Your task to perform on an android device: turn vacation reply on in the gmail app Image 0: 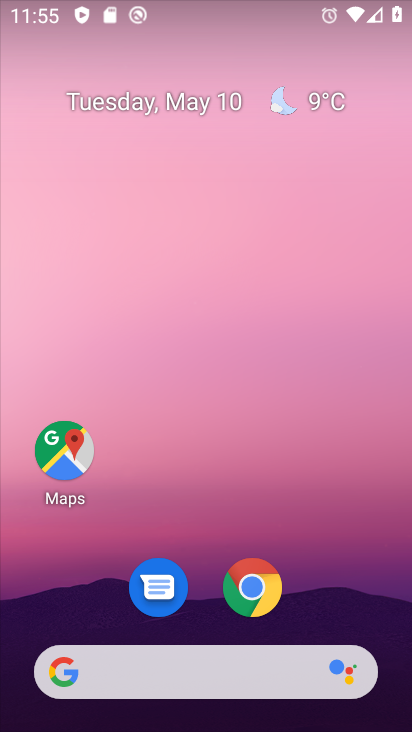
Step 0: drag from (357, 609) to (330, 0)
Your task to perform on an android device: turn vacation reply on in the gmail app Image 1: 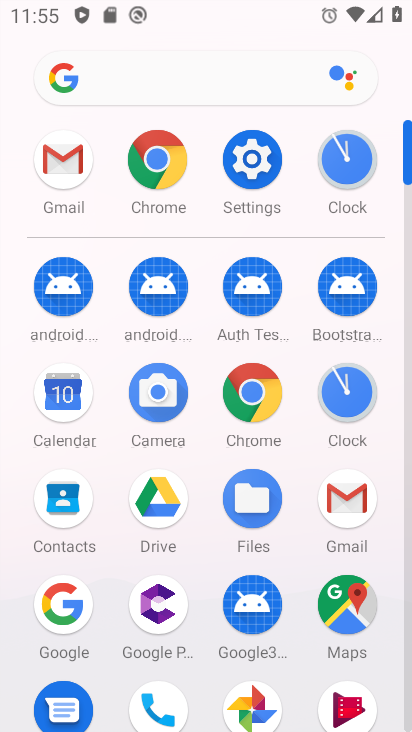
Step 1: click (56, 162)
Your task to perform on an android device: turn vacation reply on in the gmail app Image 2: 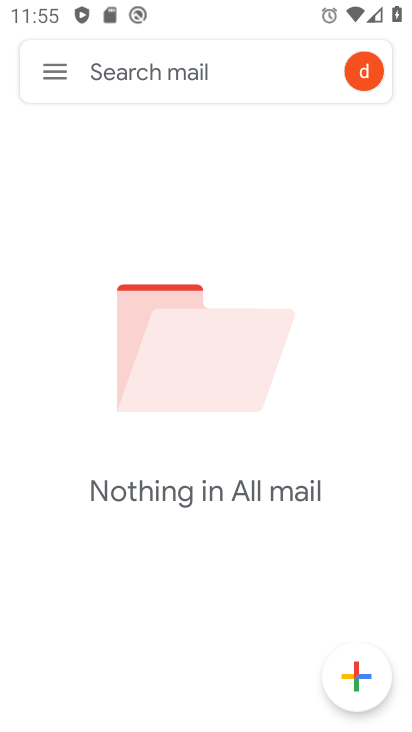
Step 2: click (44, 80)
Your task to perform on an android device: turn vacation reply on in the gmail app Image 3: 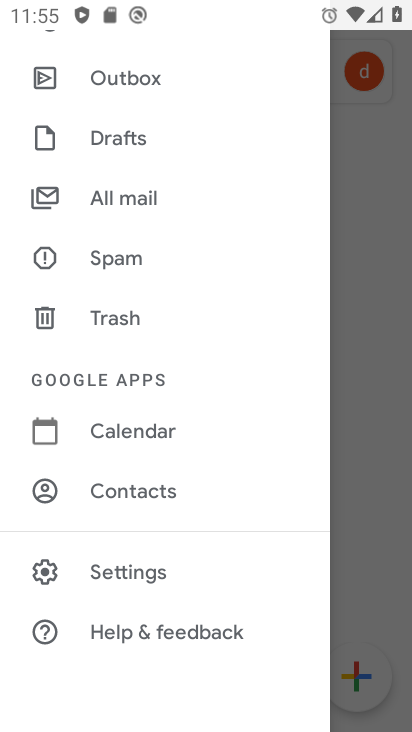
Step 3: click (134, 579)
Your task to perform on an android device: turn vacation reply on in the gmail app Image 4: 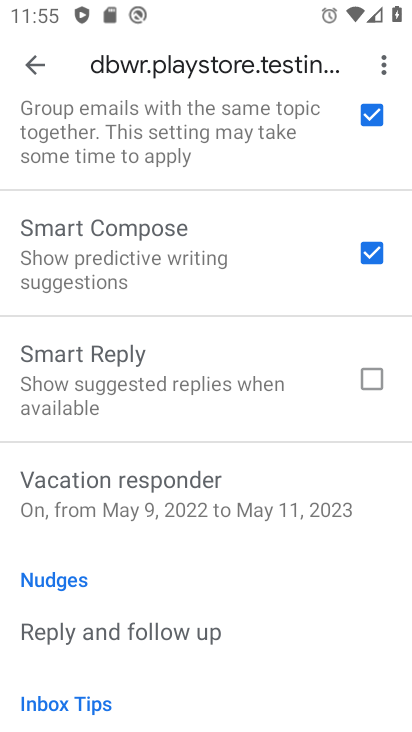
Step 4: click (101, 487)
Your task to perform on an android device: turn vacation reply on in the gmail app Image 5: 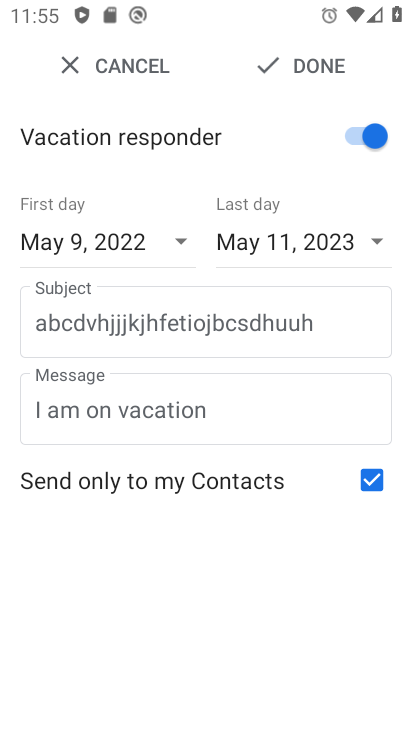
Step 5: click (298, 60)
Your task to perform on an android device: turn vacation reply on in the gmail app Image 6: 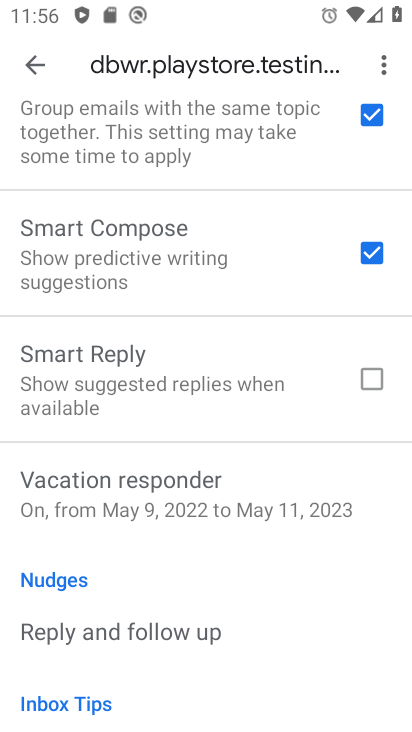
Step 6: task complete